Your task to perform on an android device: turn pop-ups on in chrome Image 0: 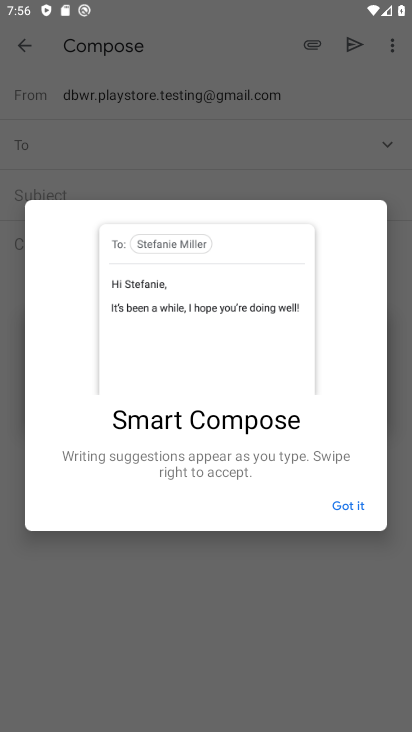
Step 0: click (334, 504)
Your task to perform on an android device: turn pop-ups on in chrome Image 1: 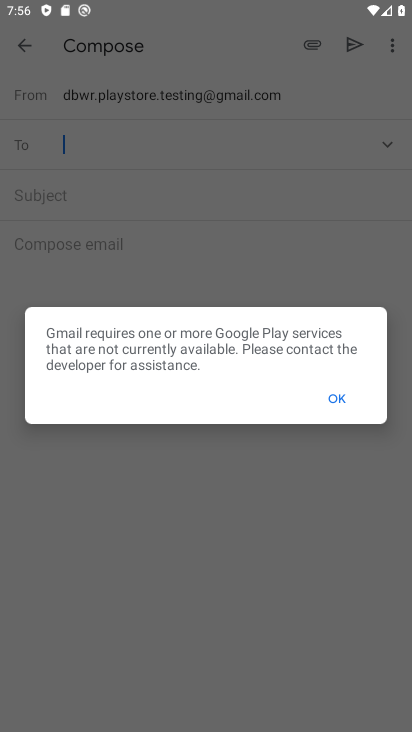
Step 1: press home button
Your task to perform on an android device: turn pop-ups on in chrome Image 2: 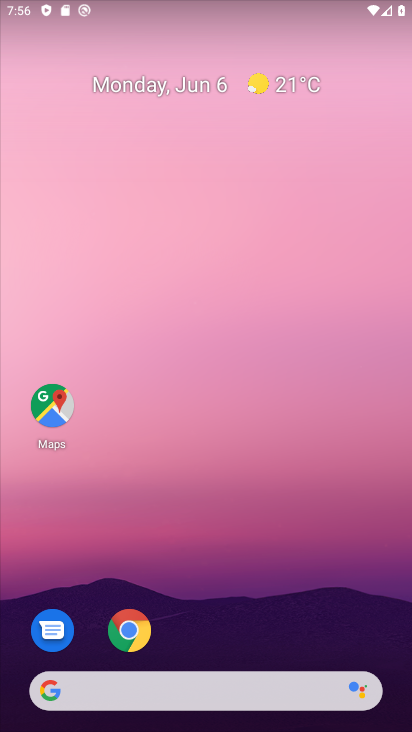
Step 2: click (140, 621)
Your task to perform on an android device: turn pop-ups on in chrome Image 3: 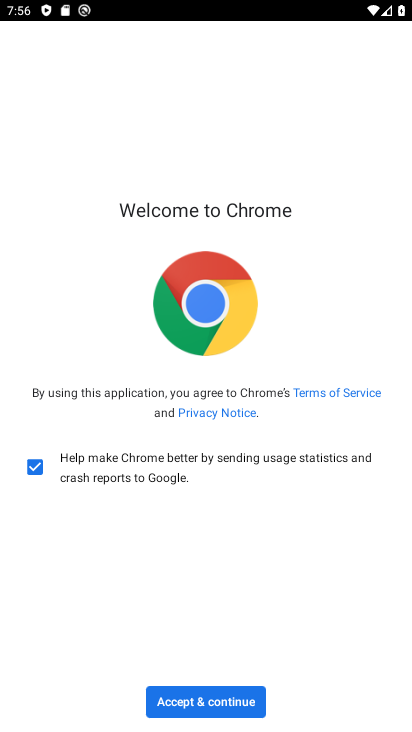
Step 3: click (240, 689)
Your task to perform on an android device: turn pop-ups on in chrome Image 4: 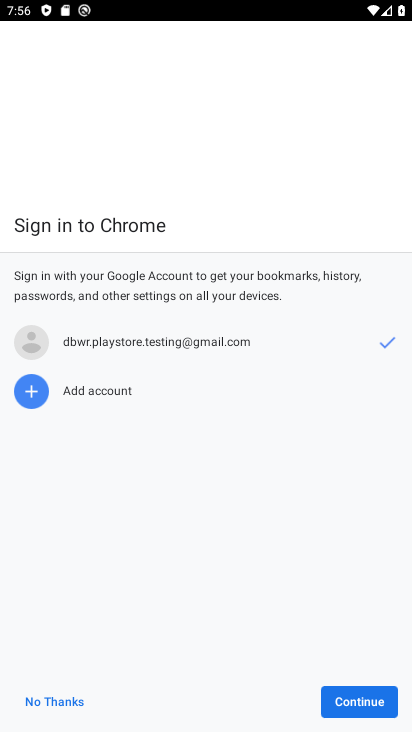
Step 4: click (372, 688)
Your task to perform on an android device: turn pop-ups on in chrome Image 5: 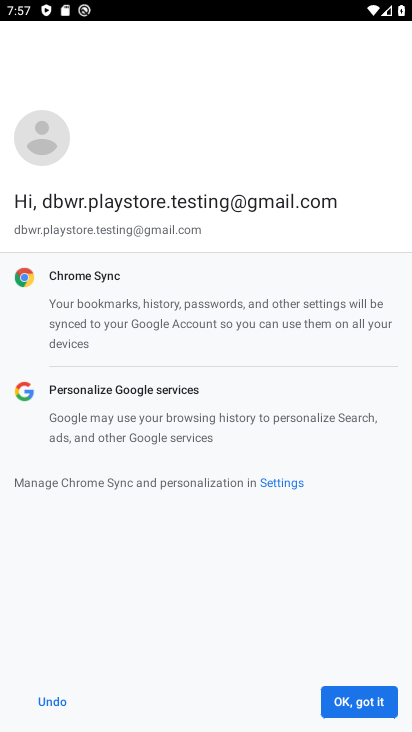
Step 5: click (349, 703)
Your task to perform on an android device: turn pop-ups on in chrome Image 6: 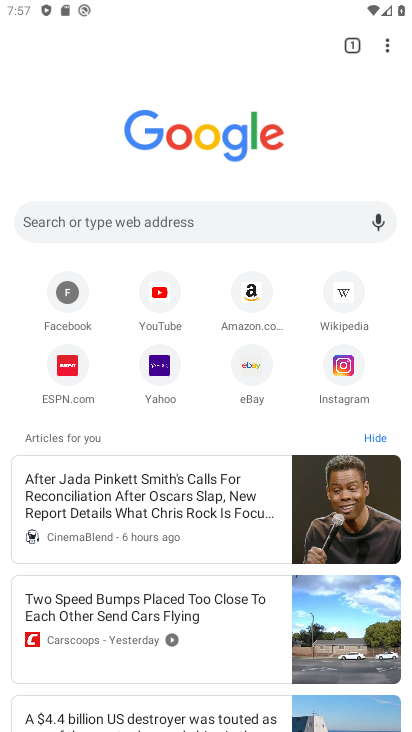
Step 6: drag from (389, 51) to (244, 373)
Your task to perform on an android device: turn pop-ups on in chrome Image 7: 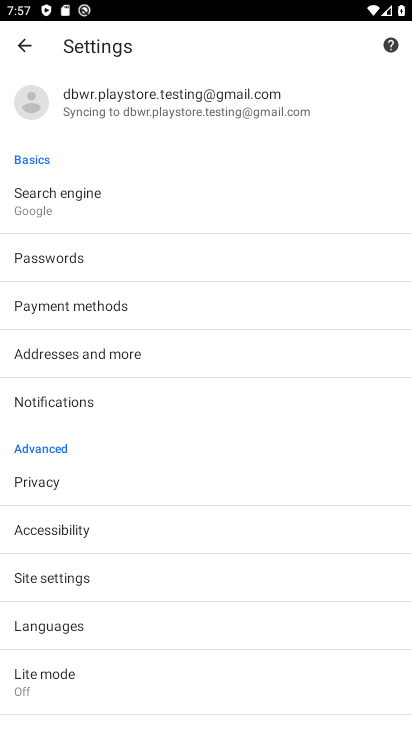
Step 7: click (92, 570)
Your task to perform on an android device: turn pop-ups on in chrome Image 8: 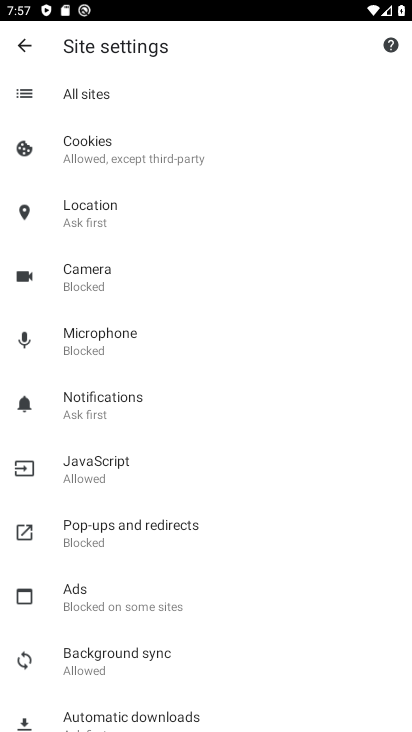
Step 8: click (181, 534)
Your task to perform on an android device: turn pop-ups on in chrome Image 9: 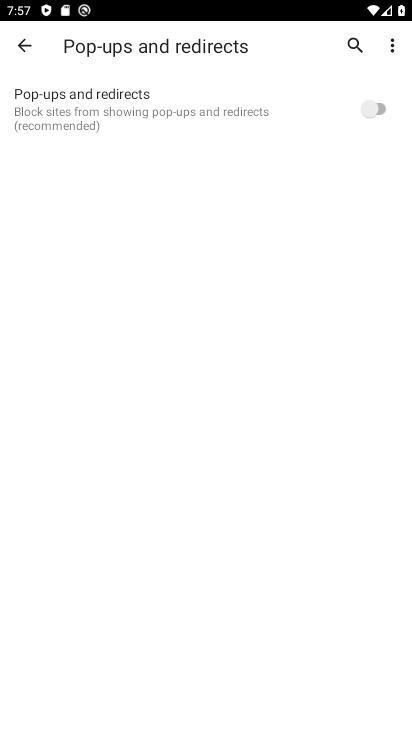
Step 9: click (377, 94)
Your task to perform on an android device: turn pop-ups on in chrome Image 10: 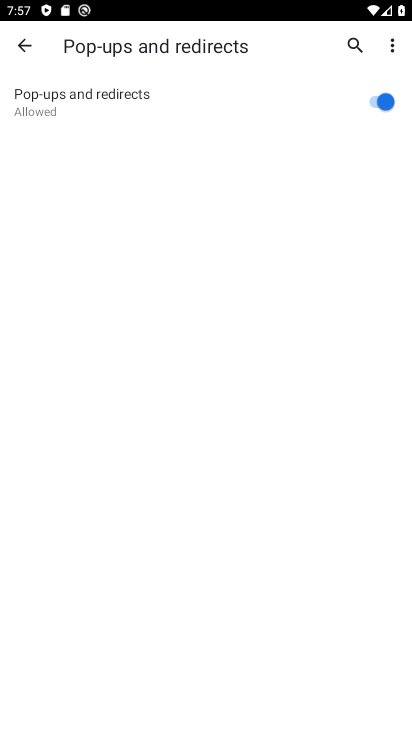
Step 10: task complete